Your task to perform on an android device: turn on javascript in the chrome app Image 0: 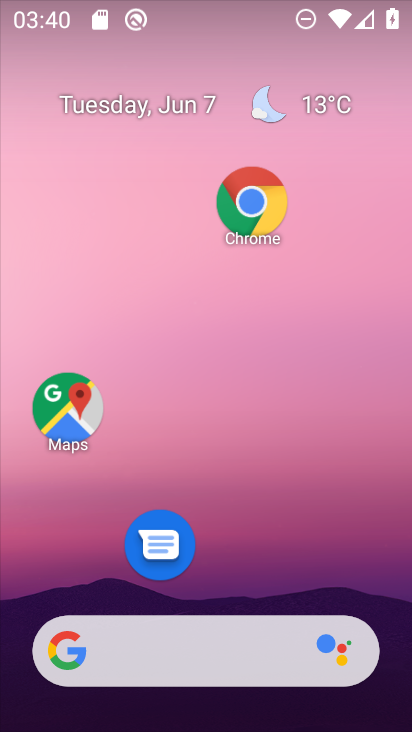
Step 0: click (264, 200)
Your task to perform on an android device: turn on javascript in the chrome app Image 1: 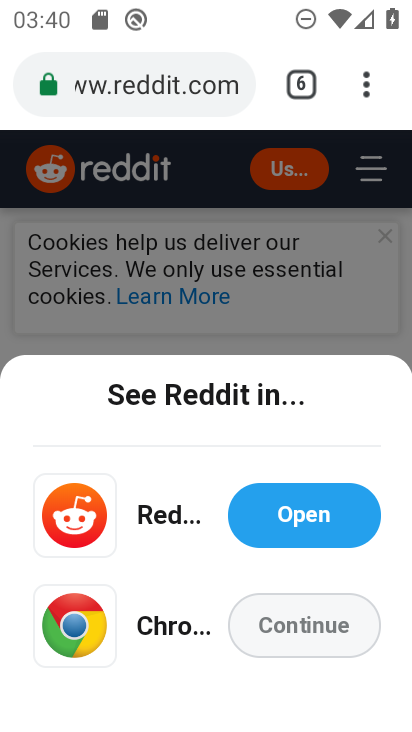
Step 1: click (376, 268)
Your task to perform on an android device: turn on javascript in the chrome app Image 2: 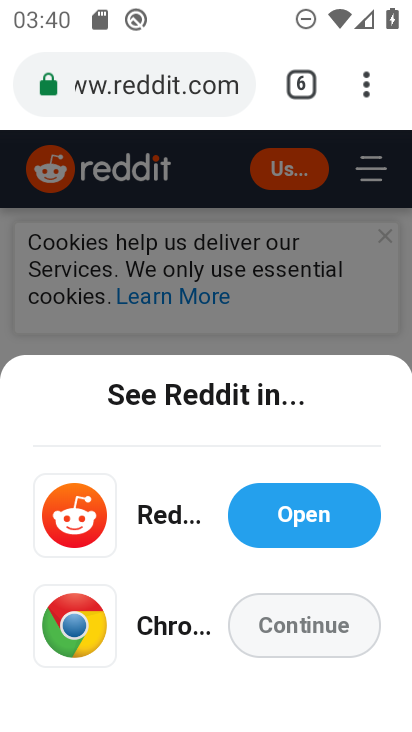
Step 2: click (364, 74)
Your task to perform on an android device: turn on javascript in the chrome app Image 3: 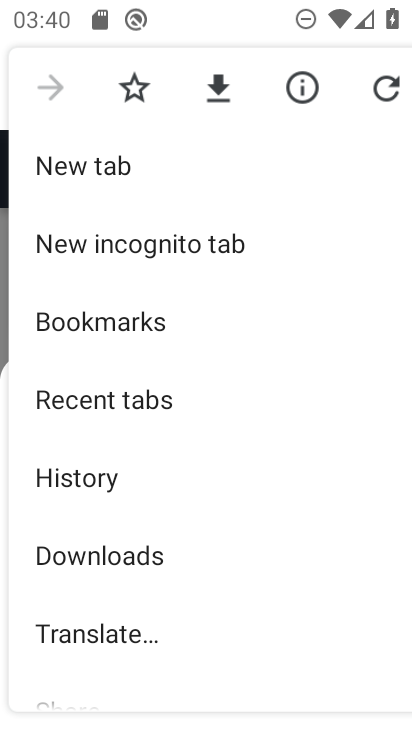
Step 3: drag from (194, 583) to (192, 239)
Your task to perform on an android device: turn on javascript in the chrome app Image 4: 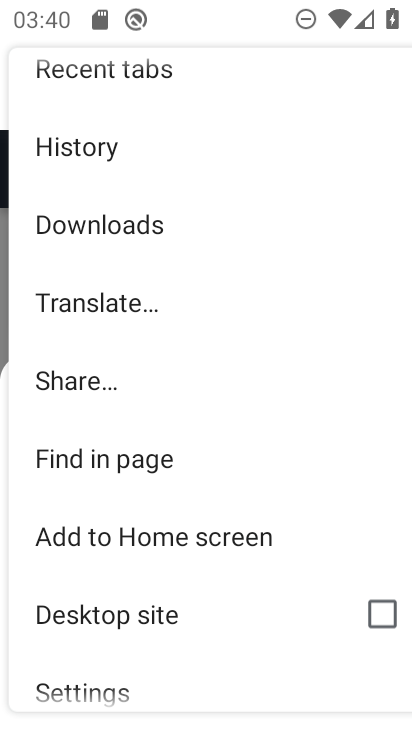
Step 4: drag from (180, 610) to (169, 282)
Your task to perform on an android device: turn on javascript in the chrome app Image 5: 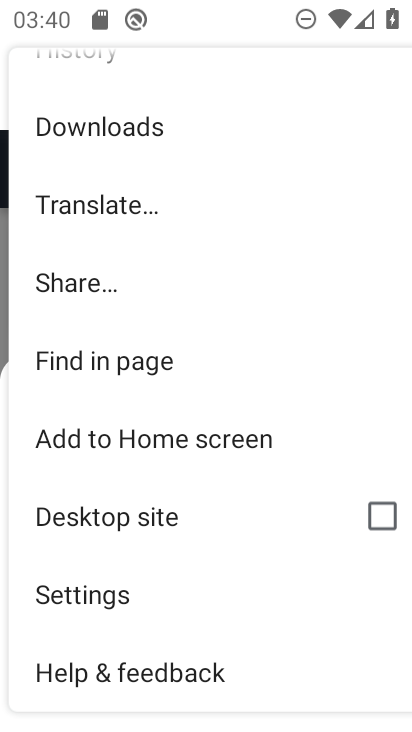
Step 5: click (136, 589)
Your task to perform on an android device: turn on javascript in the chrome app Image 6: 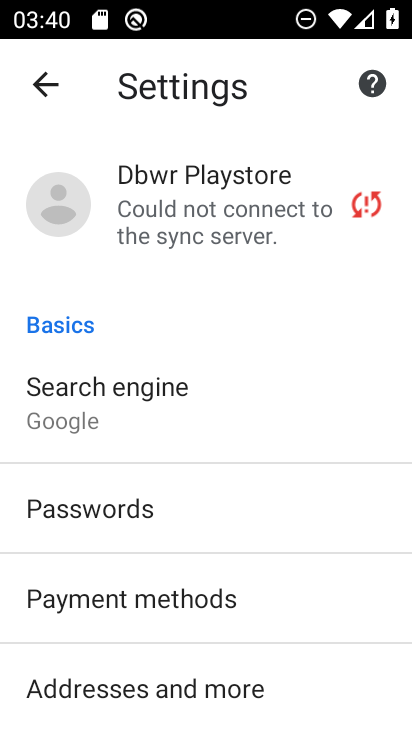
Step 6: drag from (255, 642) to (254, 299)
Your task to perform on an android device: turn on javascript in the chrome app Image 7: 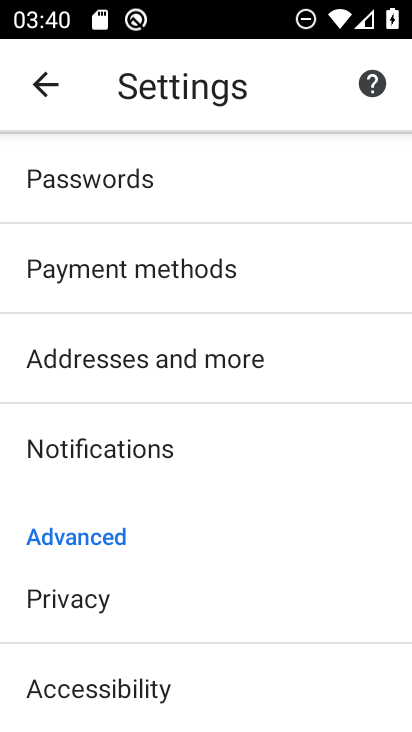
Step 7: drag from (219, 640) to (248, 272)
Your task to perform on an android device: turn on javascript in the chrome app Image 8: 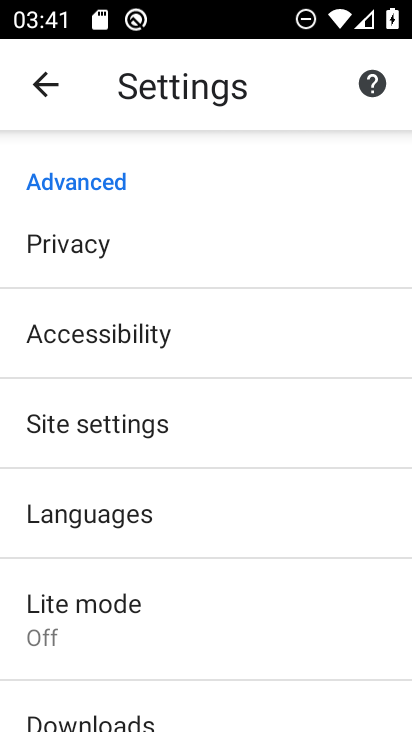
Step 8: click (143, 426)
Your task to perform on an android device: turn on javascript in the chrome app Image 9: 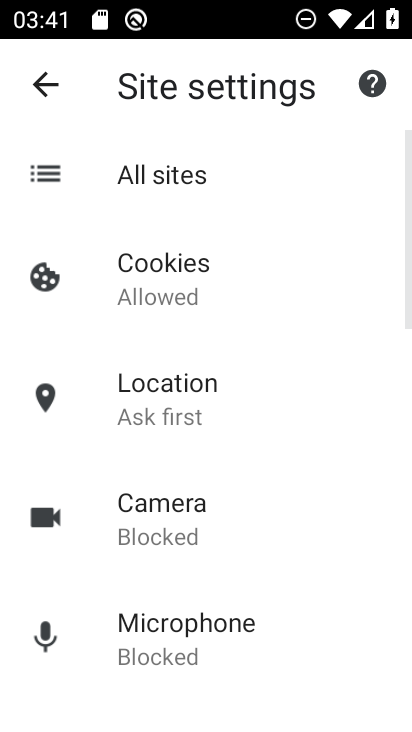
Step 9: drag from (210, 572) to (218, 306)
Your task to perform on an android device: turn on javascript in the chrome app Image 10: 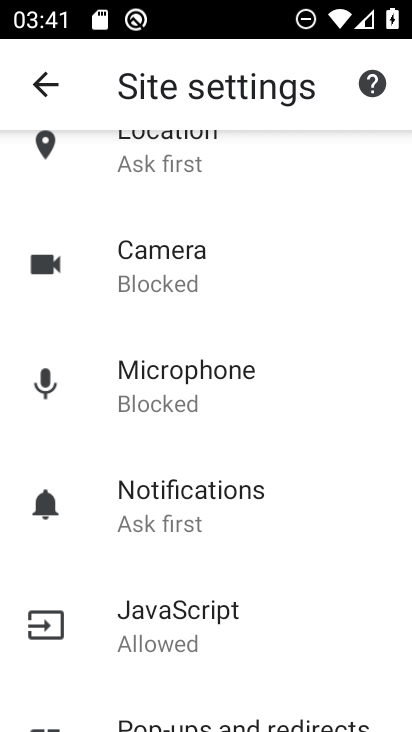
Step 10: drag from (206, 626) to (242, 357)
Your task to perform on an android device: turn on javascript in the chrome app Image 11: 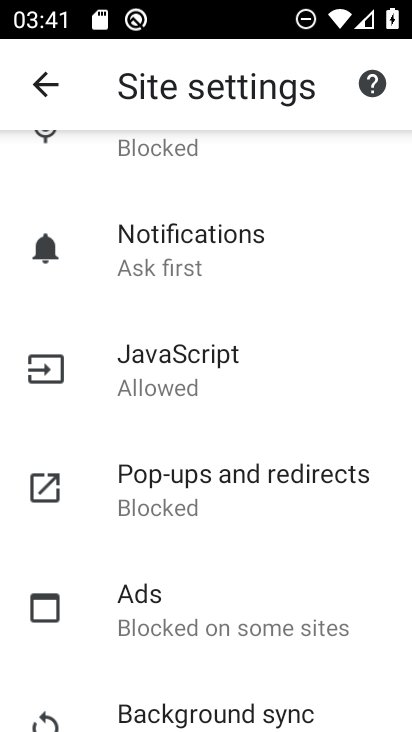
Step 11: click (198, 363)
Your task to perform on an android device: turn on javascript in the chrome app Image 12: 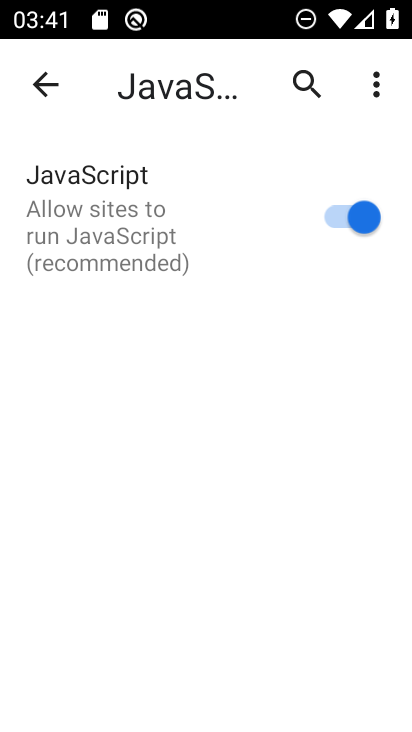
Step 12: task complete